Your task to perform on an android device: What's the news this month? Image 0: 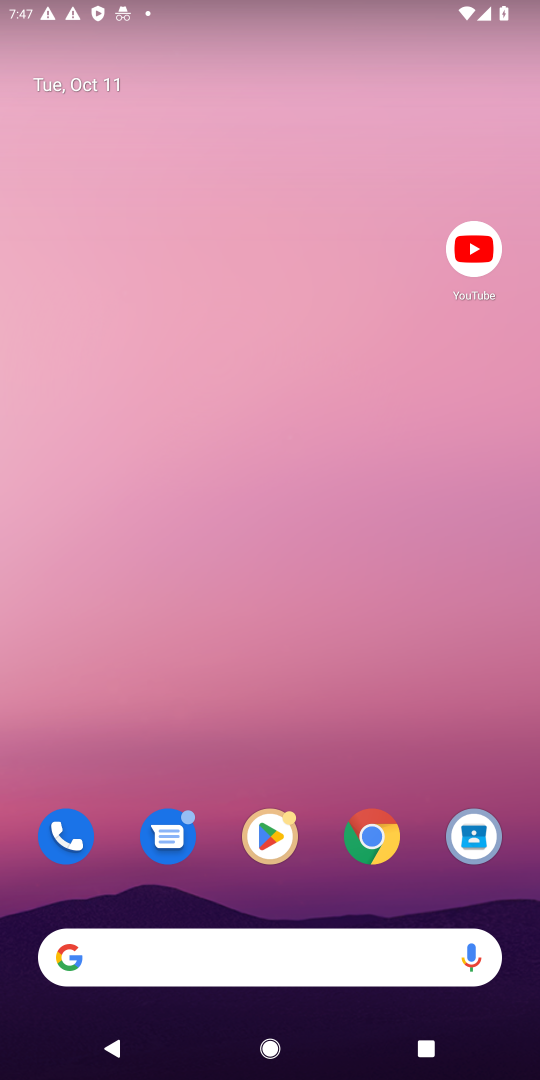
Step 0: click (366, 832)
Your task to perform on an android device: What's the news this month? Image 1: 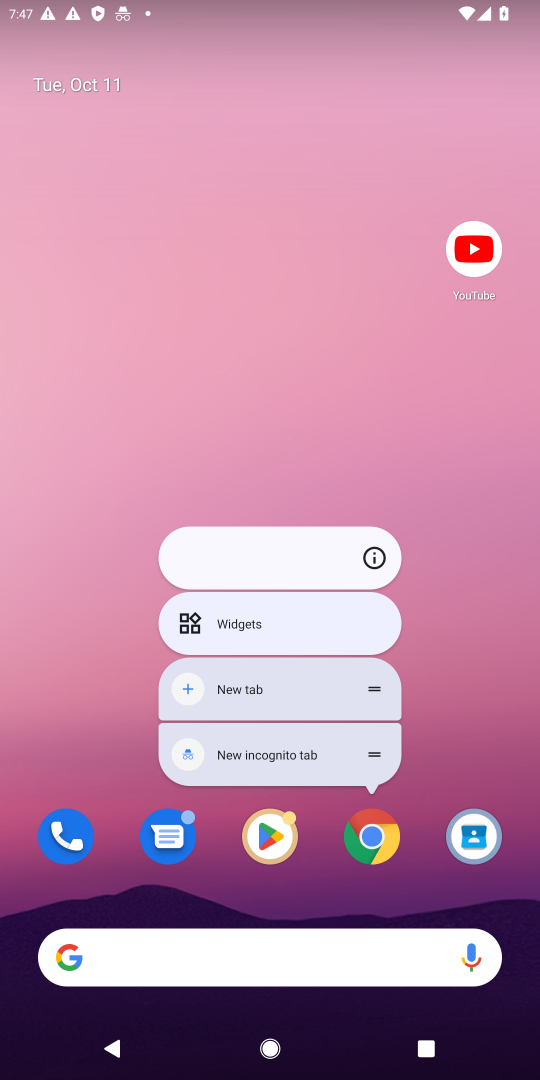
Step 1: click (376, 838)
Your task to perform on an android device: What's the news this month? Image 2: 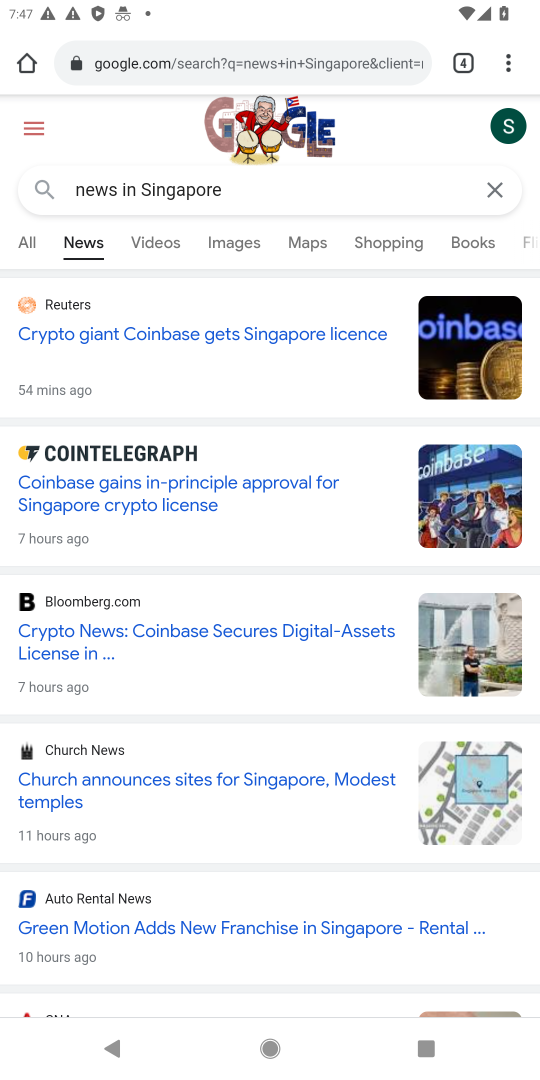
Step 2: click (112, 61)
Your task to perform on an android device: What's the news this month? Image 3: 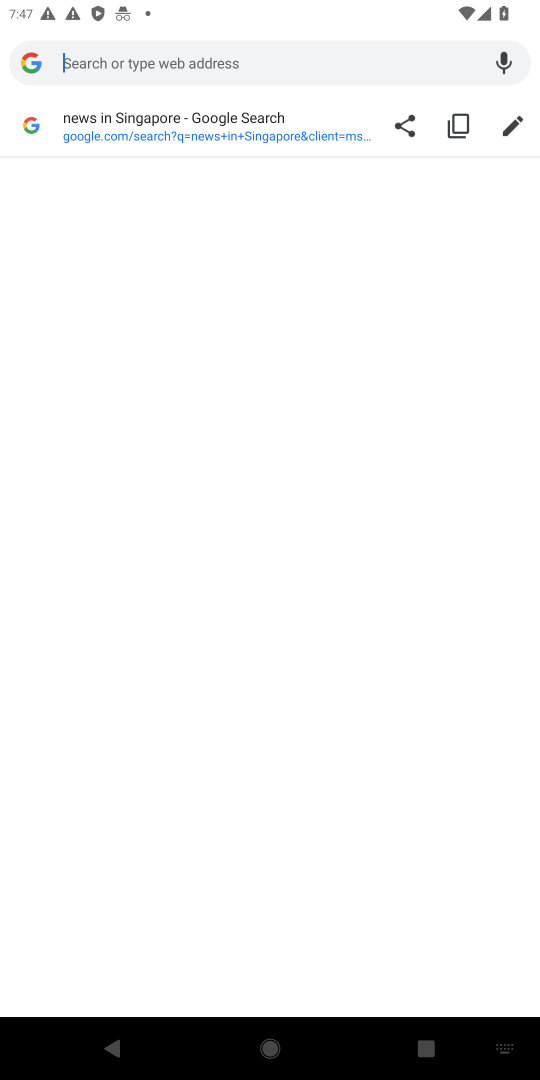
Step 3: type "news this month"
Your task to perform on an android device: What's the news this month? Image 4: 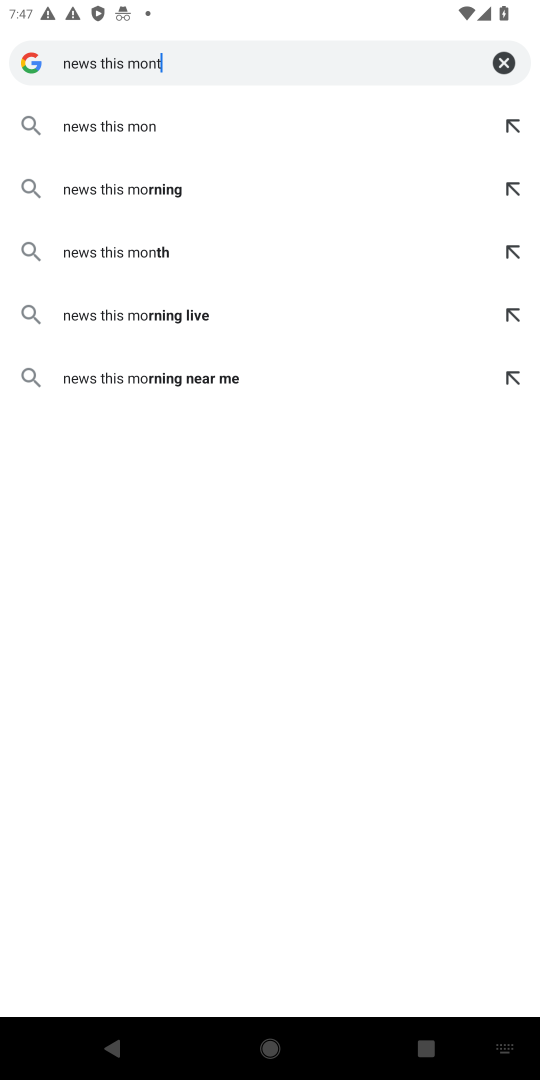
Step 4: press enter
Your task to perform on an android device: What's the news this month? Image 5: 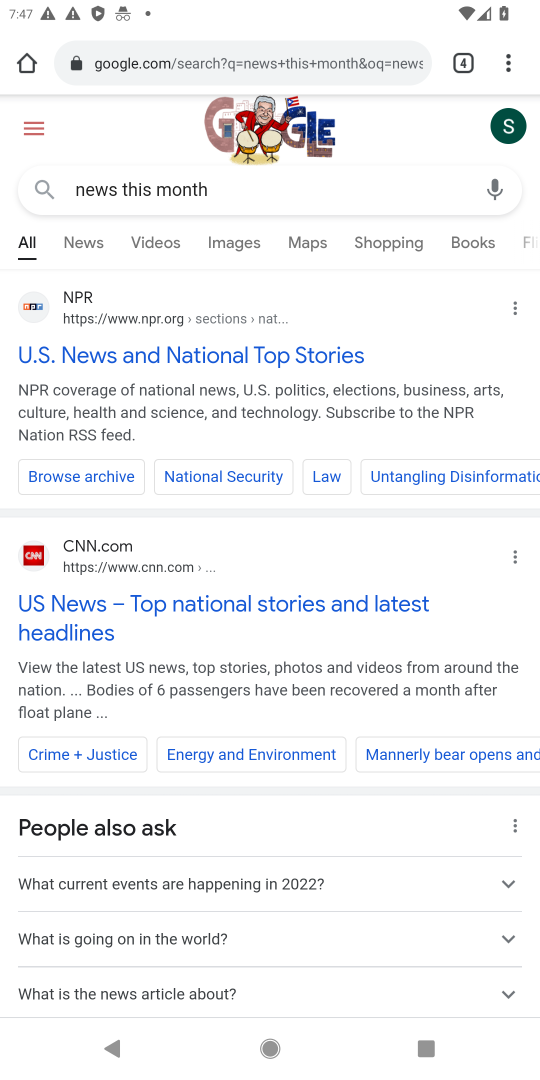
Step 5: click (82, 243)
Your task to perform on an android device: What's the news this month? Image 6: 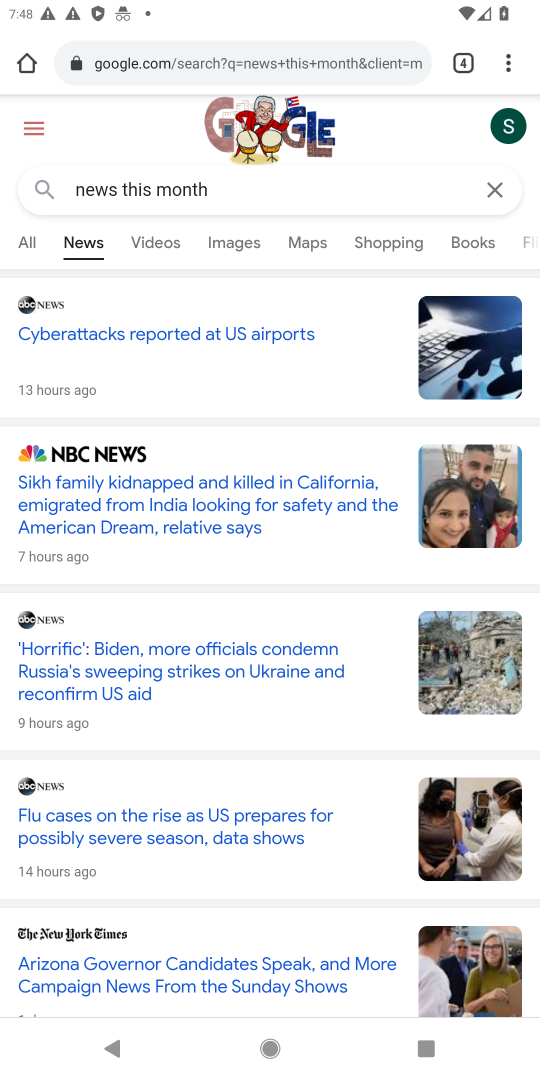
Step 6: task complete